Your task to perform on an android device: delete a single message in the gmail app Image 0: 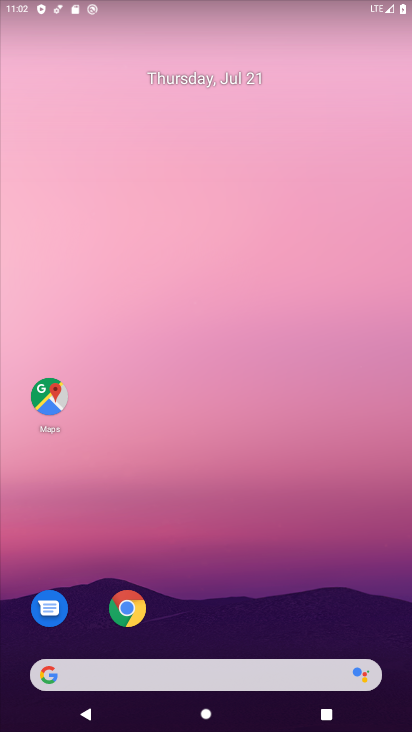
Step 0: drag from (155, 567) to (210, 168)
Your task to perform on an android device: delete a single message in the gmail app Image 1: 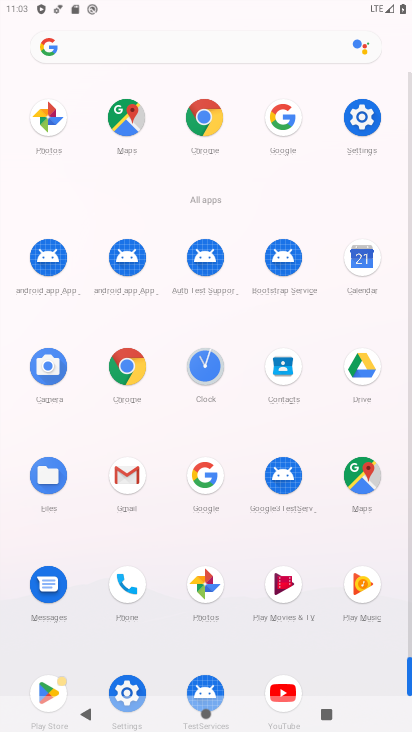
Step 1: click (132, 468)
Your task to perform on an android device: delete a single message in the gmail app Image 2: 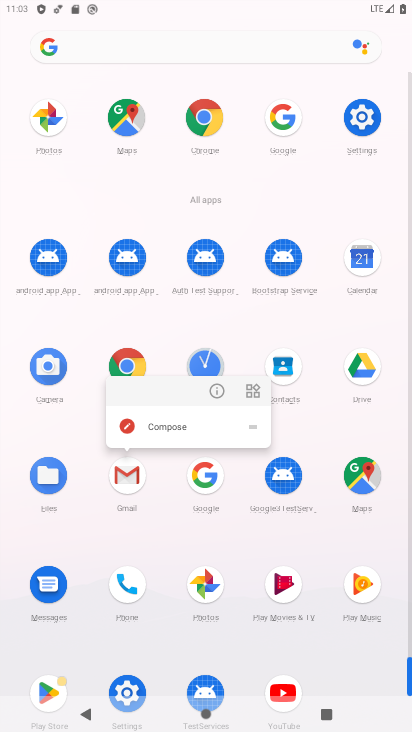
Step 2: click (215, 390)
Your task to perform on an android device: delete a single message in the gmail app Image 3: 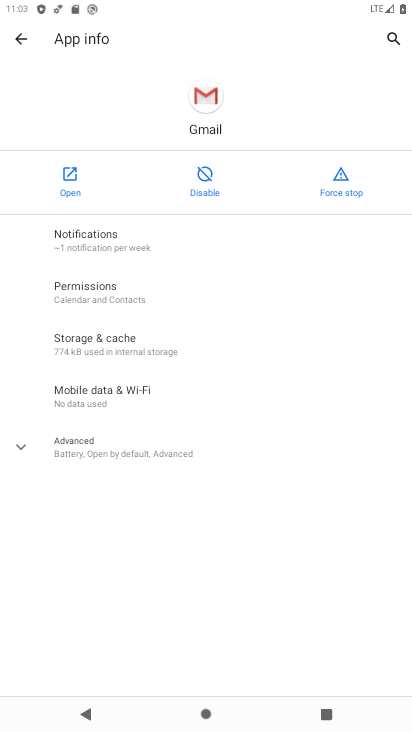
Step 3: drag from (219, 575) to (196, 360)
Your task to perform on an android device: delete a single message in the gmail app Image 4: 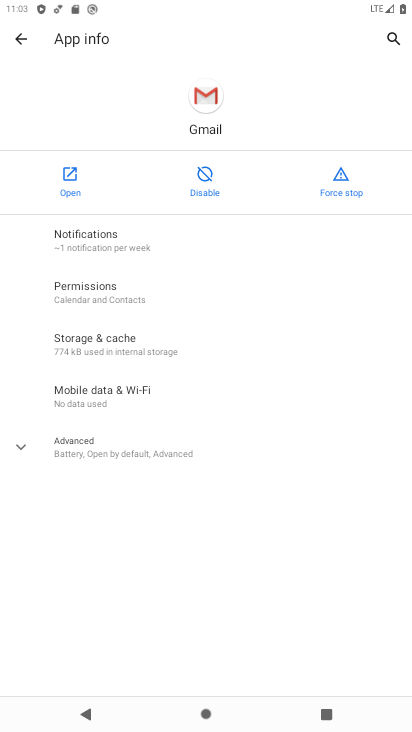
Step 4: click (36, 165)
Your task to perform on an android device: delete a single message in the gmail app Image 5: 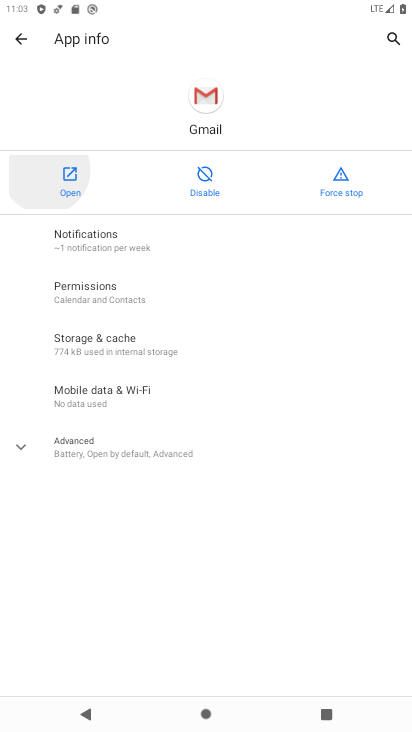
Step 5: click (55, 177)
Your task to perform on an android device: delete a single message in the gmail app Image 6: 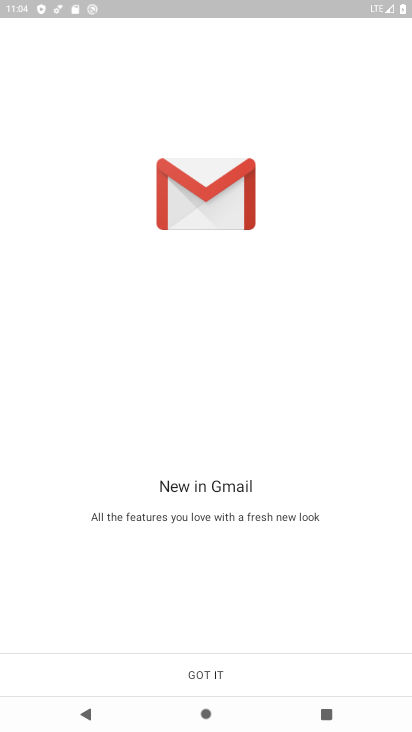
Step 6: click (211, 676)
Your task to perform on an android device: delete a single message in the gmail app Image 7: 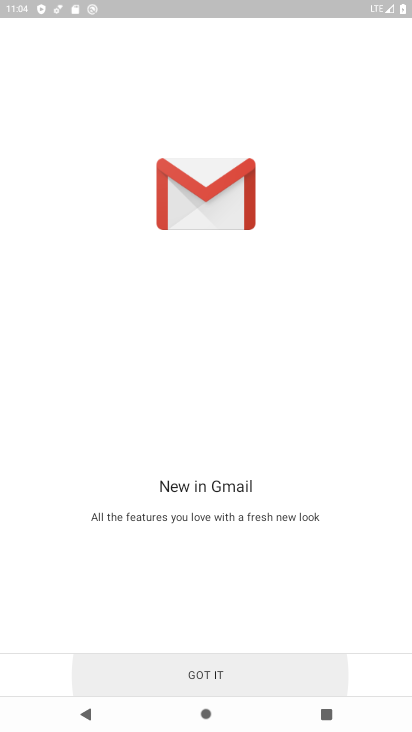
Step 7: click (206, 672)
Your task to perform on an android device: delete a single message in the gmail app Image 8: 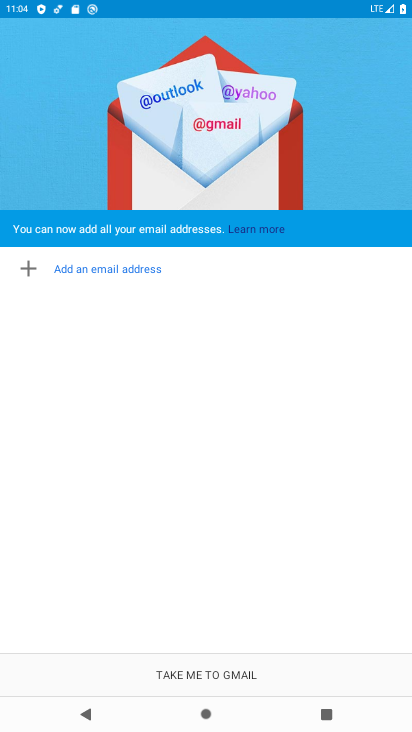
Step 8: click (175, 688)
Your task to perform on an android device: delete a single message in the gmail app Image 9: 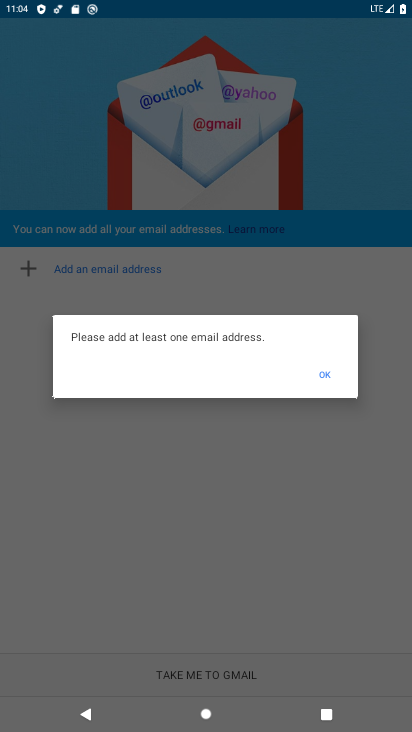
Step 9: task complete